Your task to perform on an android device: Go to CNN.com Image 0: 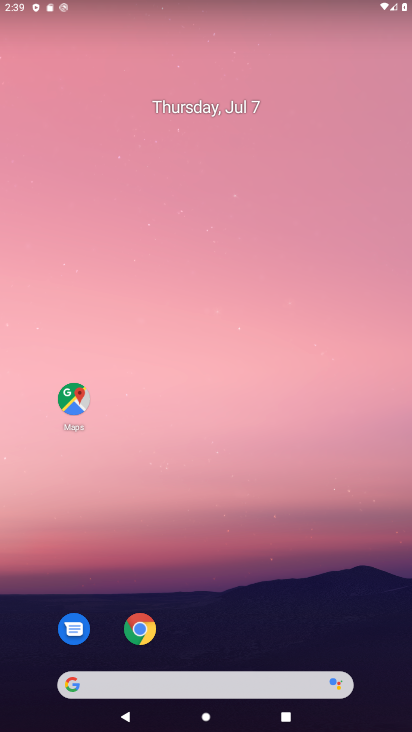
Step 0: click (134, 621)
Your task to perform on an android device: Go to CNN.com Image 1: 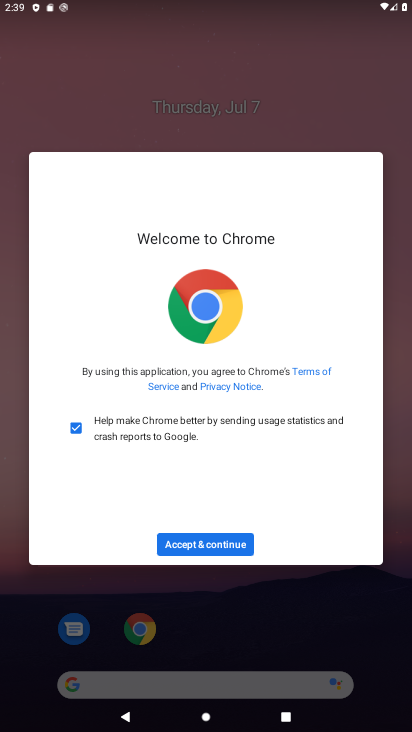
Step 1: click (219, 555)
Your task to perform on an android device: Go to CNN.com Image 2: 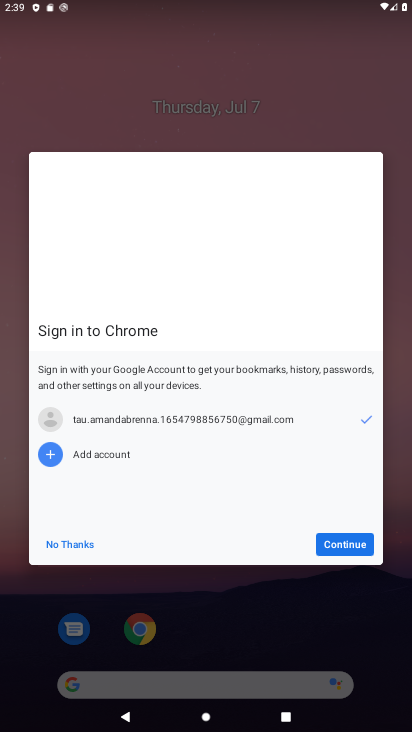
Step 2: click (350, 539)
Your task to perform on an android device: Go to CNN.com Image 3: 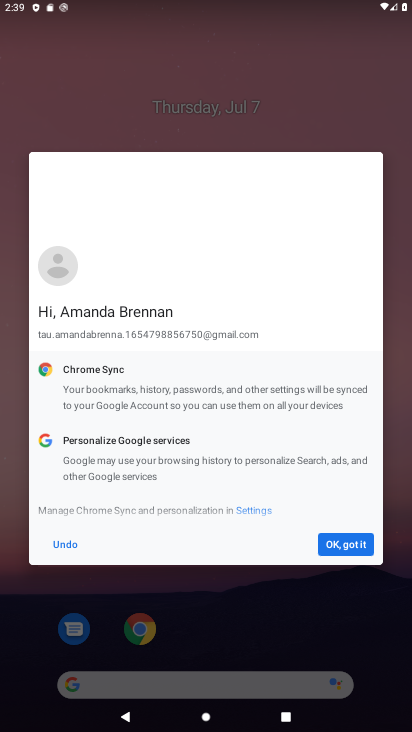
Step 3: click (347, 552)
Your task to perform on an android device: Go to CNN.com Image 4: 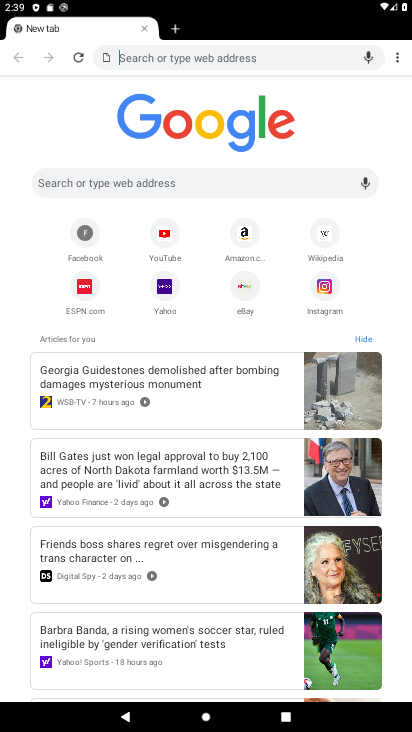
Step 4: click (132, 183)
Your task to perform on an android device: Go to CNN.com Image 5: 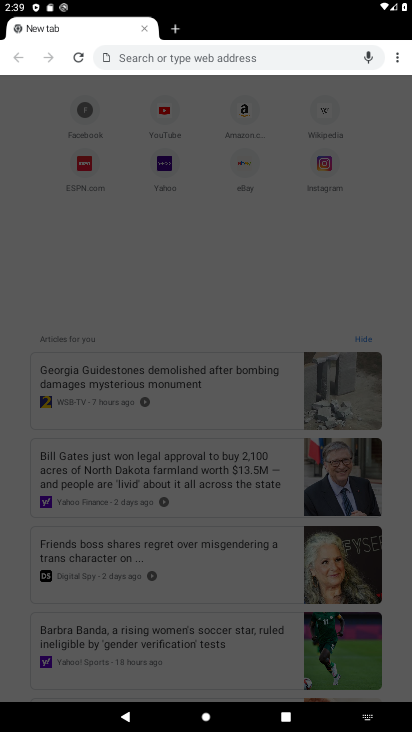
Step 5: type "CNN.com"
Your task to perform on an android device: Go to CNN.com Image 6: 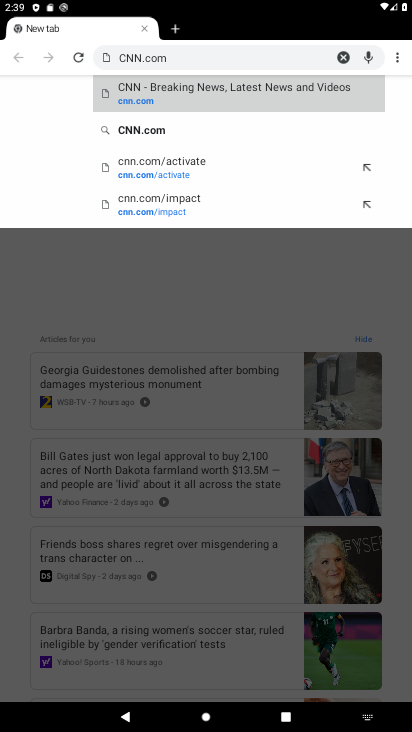
Step 6: click (185, 125)
Your task to perform on an android device: Go to CNN.com Image 7: 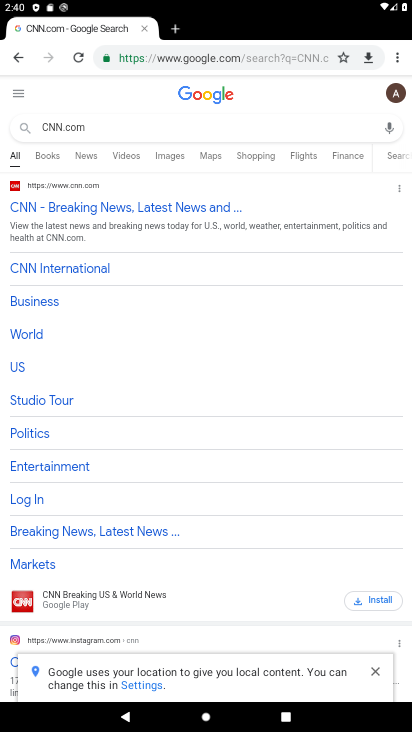
Step 7: click (97, 212)
Your task to perform on an android device: Go to CNN.com Image 8: 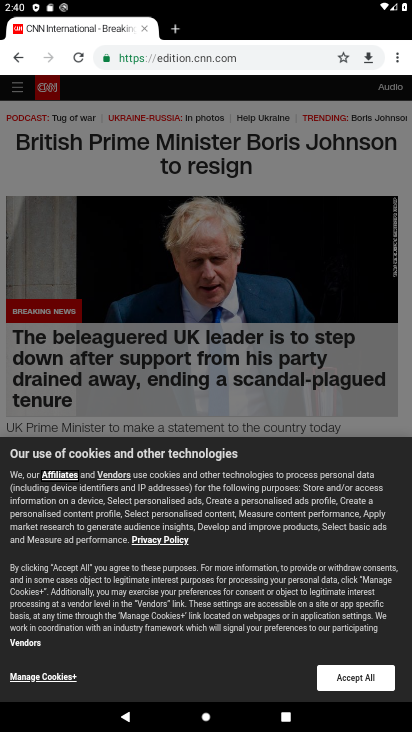
Step 8: click (385, 672)
Your task to perform on an android device: Go to CNN.com Image 9: 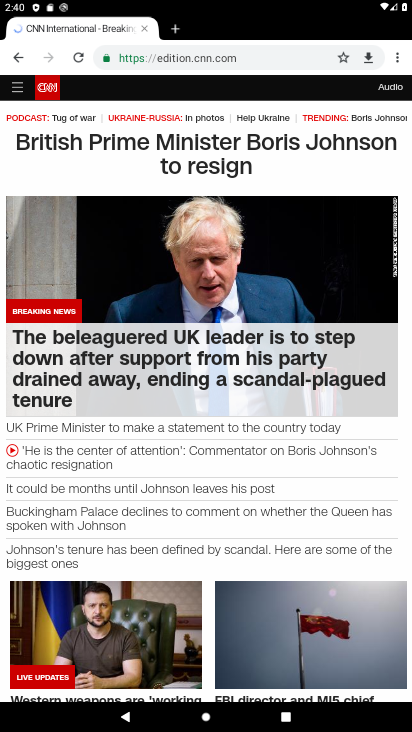
Step 9: task complete